Your task to perform on an android device: Go to Amazon Image 0: 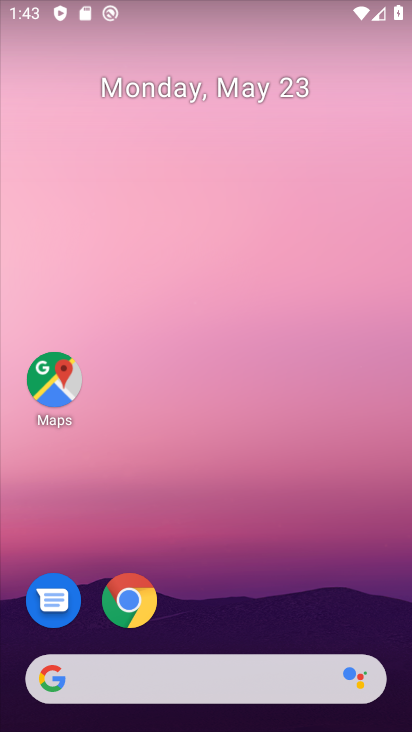
Step 0: click (129, 601)
Your task to perform on an android device: Go to Amazon Image 1: 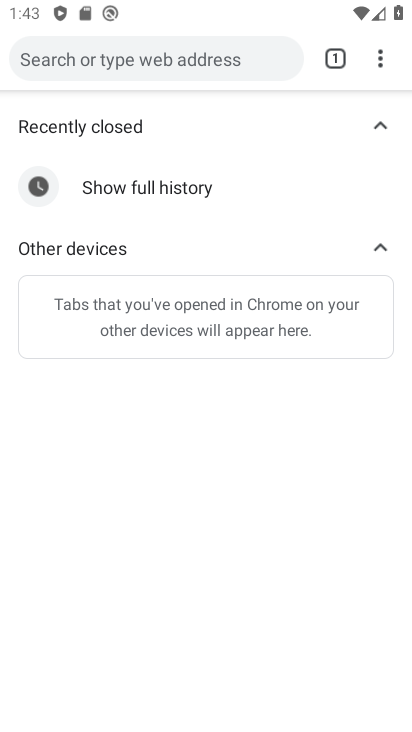
Step 1: click (328, 64)
Your task to perform on an android device: Go to Amazon Image 2: 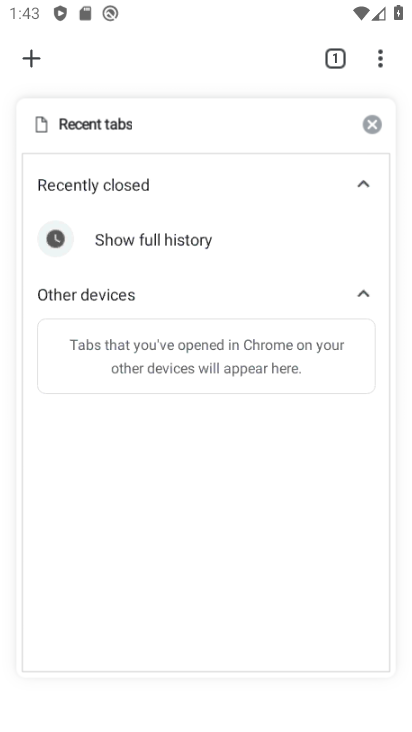
Step 2: click (32, 62)
Your task to perform on an android device: Go to Amazon Image 3: 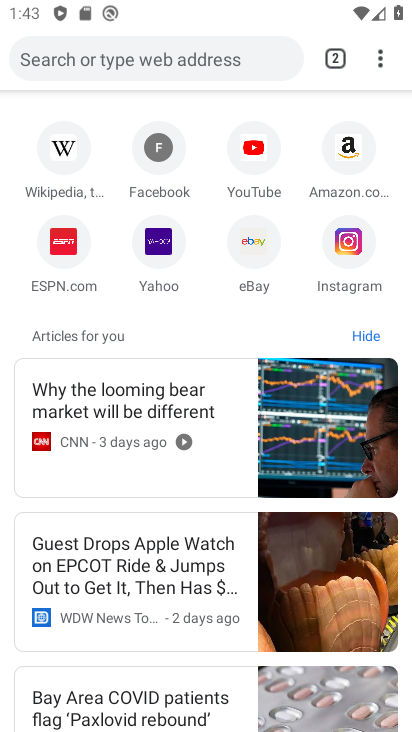
Step 3: click (335, 147)
Your task to perform on an android device: Go to Amazon Image 4: 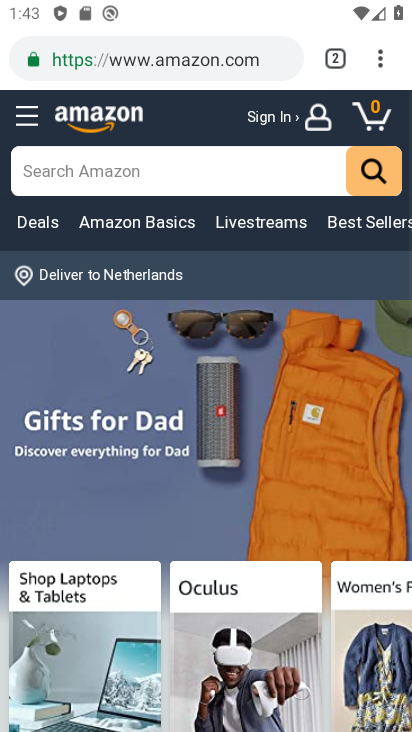
Step 4: task complete